Your task to perform on an android device: turn off notifications settings in the gmail app Image 0: 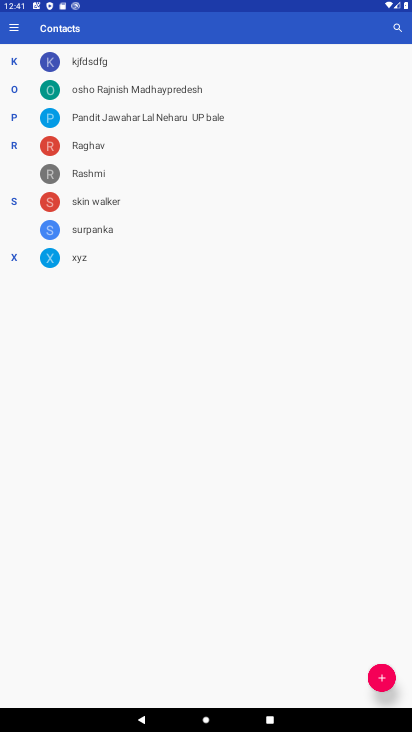
Step 0: press home button
Your task to perform on an android device: turn off notifications settings in the gmail app Image 1: 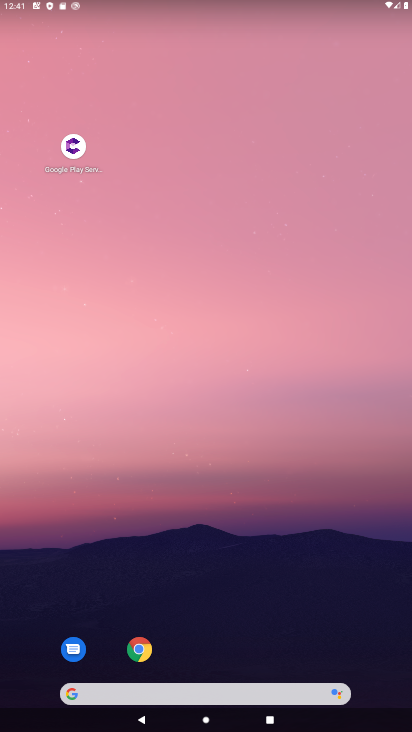
Step 1: drag from (229, 653) to (260, 202)
Your task to perform on an android device: turn off notifications settings in the gmail app Image 2: 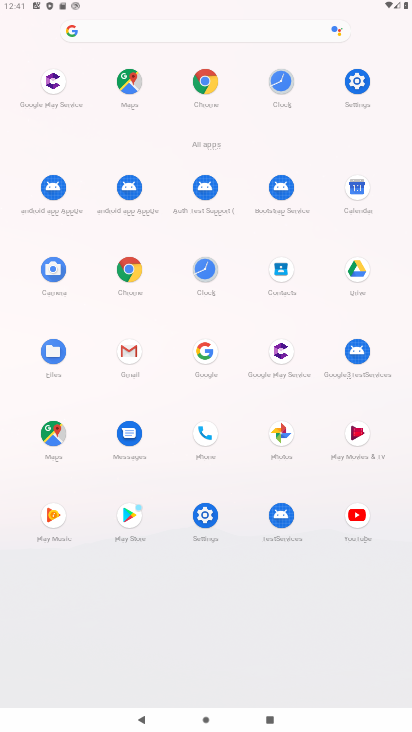
Step 2: click (123, 358)
Your task to perform on an android device: turn off notifications settings in the gmail app Image 3: 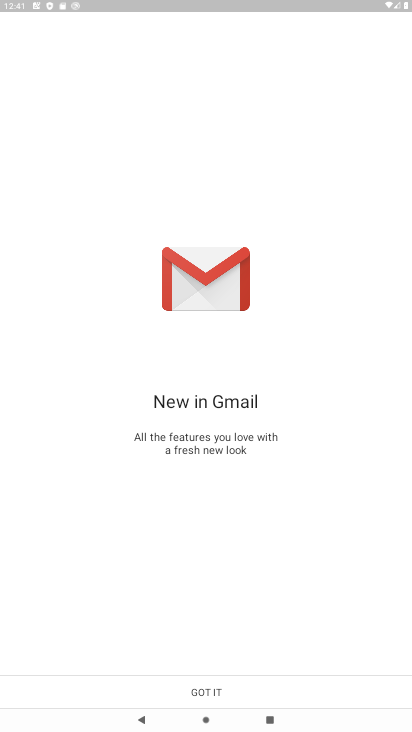
Step 3: click (202, 687)
Your task to perform on an android device: turn off notifications settings in the gmail app Image 4: 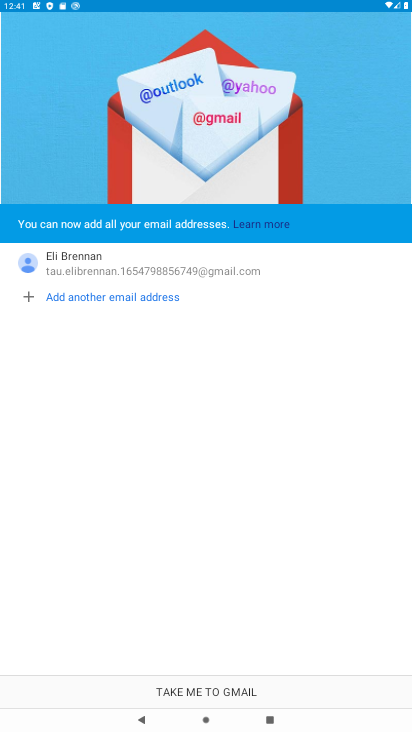
Step 4: click (234, 693)
Your task to perform on an android device: turn off notifications settings in the gmail app Image 5: 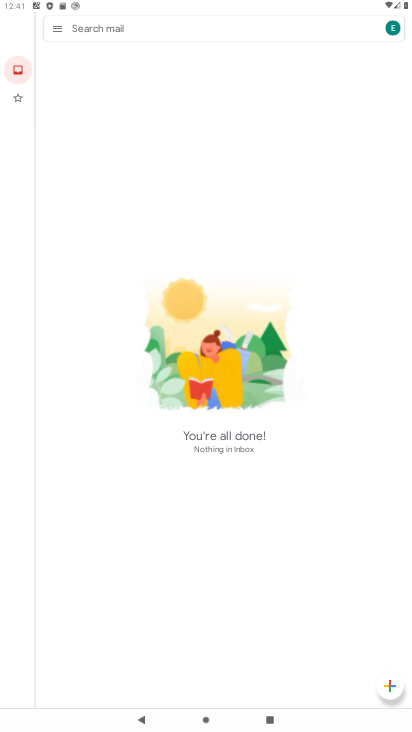
Step 5: click (59, 30)
Your task to perform on an android device: turn off notifications settings in the gmail app Image 6: 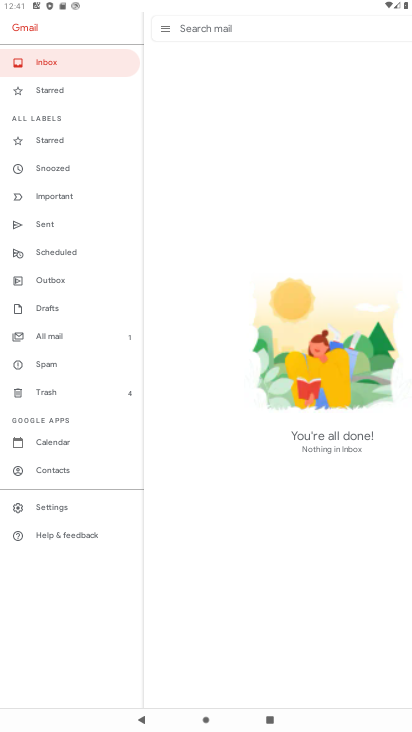
Step 6: click (43, 506)
Your task to perform on an android device: turn off notifications settings in the gmail app Image 7: 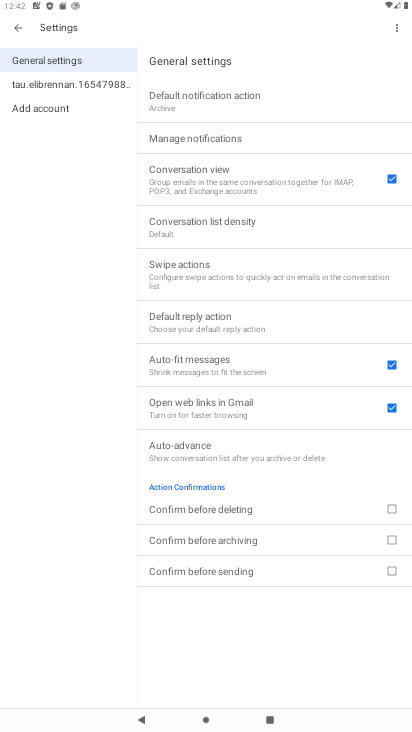
Step 7: click (94, 85)
Your task to perform on an android device: turn off notifications settings in the gmail app Image 8: 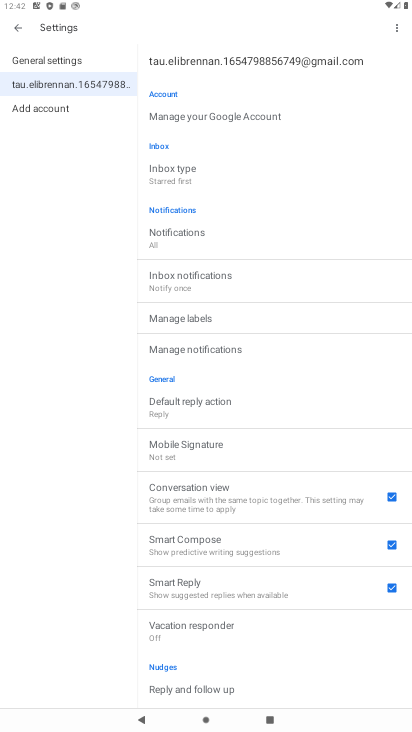
Step 8: click (207, 348)
Your task to perform on an android device: turn off notifications settings in the gmail app Image 9: 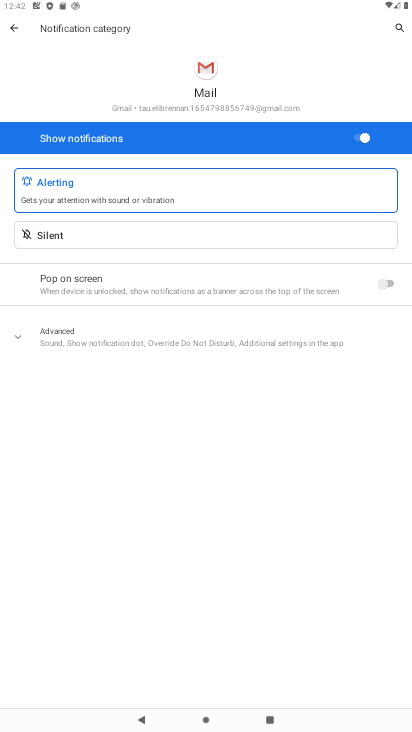
Step 9: click (358, 136)
Your task to perform on an android device: turn off notifications settings in the gmail app Image 10: 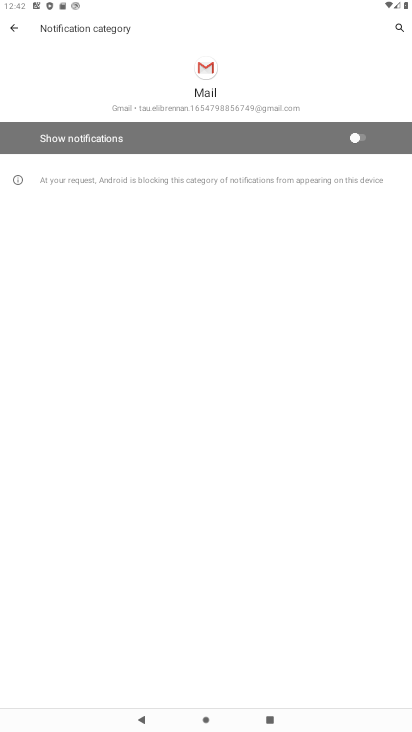
Step 10: task complete